Your task to perform on an android device: Go to network settings Image 0: 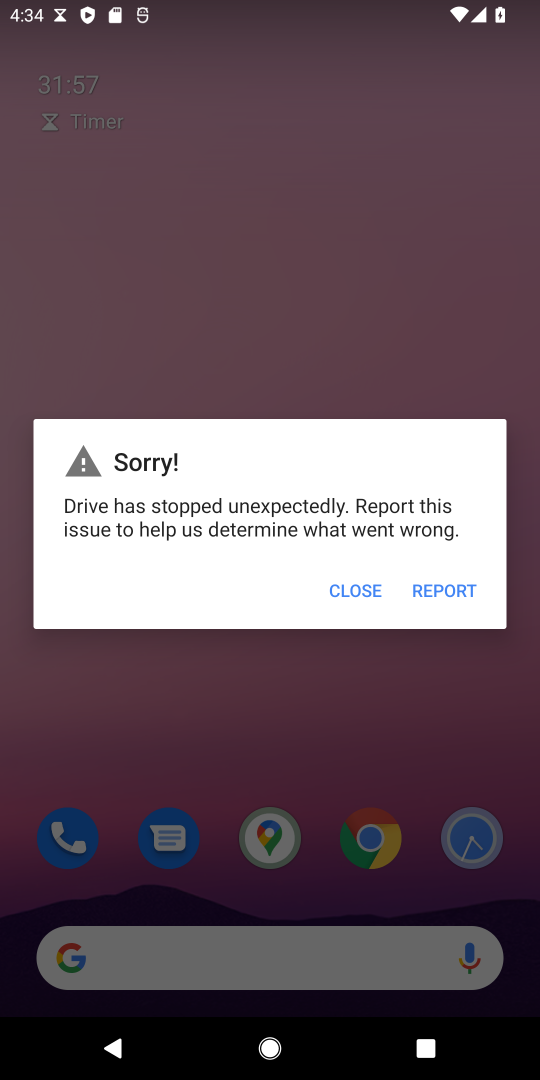
Step 0: press back button
Your task to perform on an android device: Go to network settings Image 1: 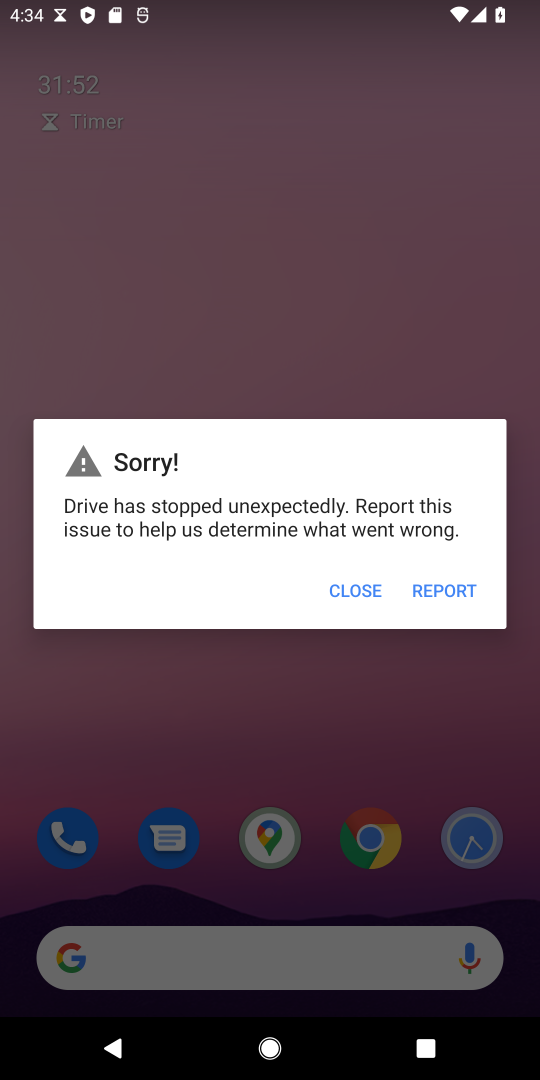
Step 1: press back button
Your task to perform on an android device: Go to network settings Image 2: 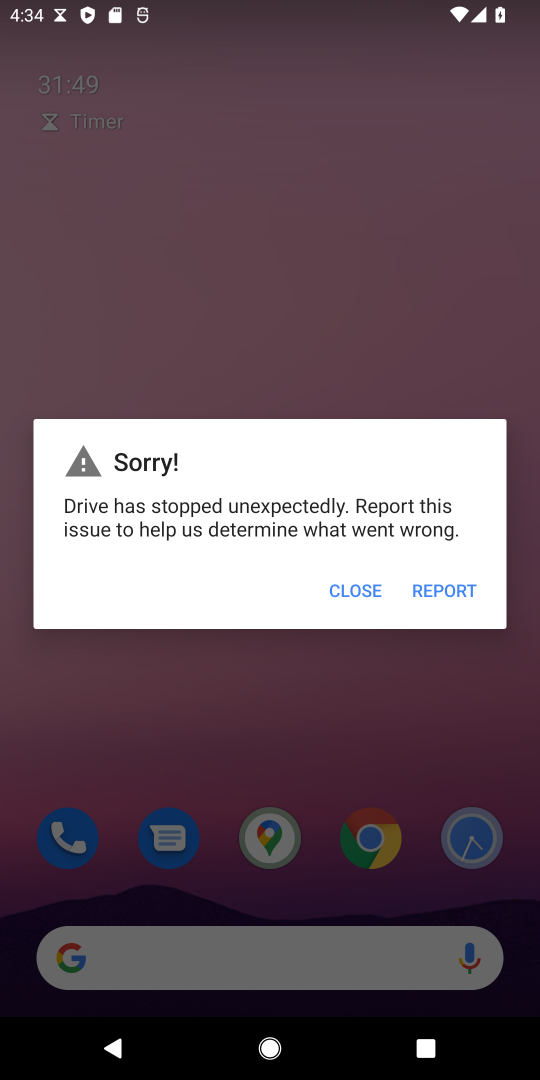
Step 2: press home button
Your task to perform on an android device: Go to network settings Image 3: 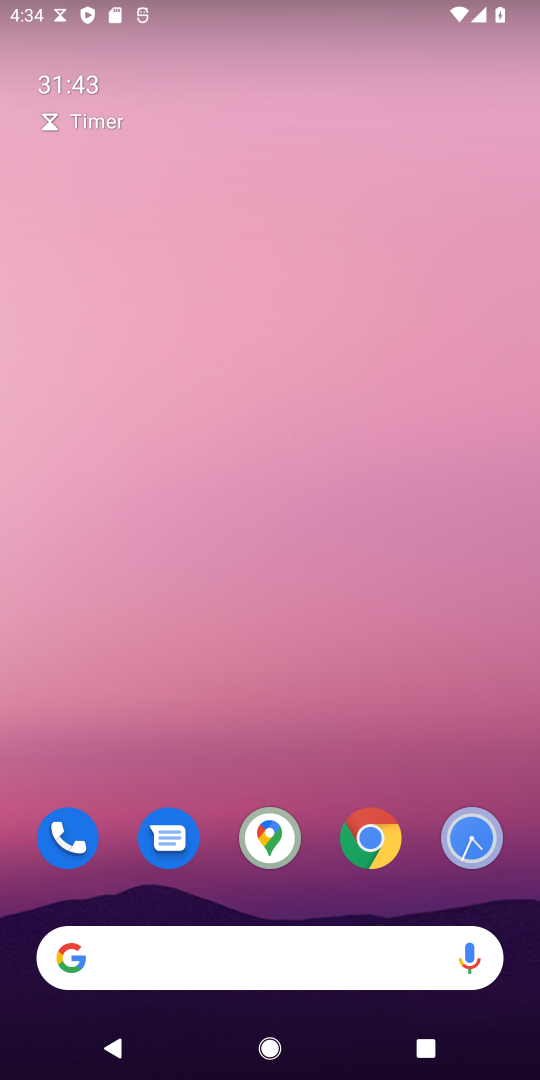
Step 3: drag from (323, 773) to (232, 253)
Your task to perform on an android device: Go to network settings Image 4: 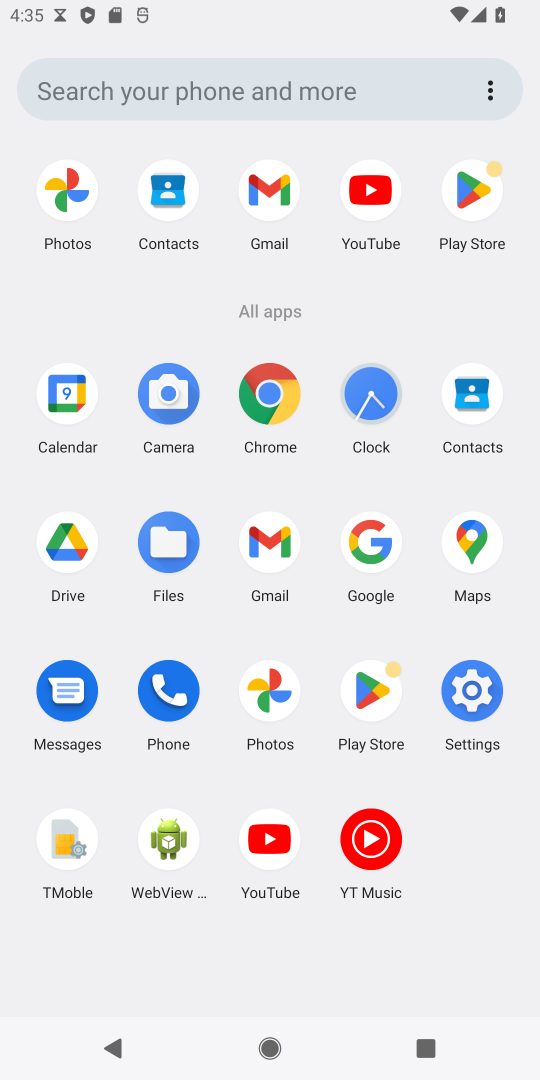
Step 4: click (463, 708)
Your task to perform on an android device: Go to network settings Image 5: 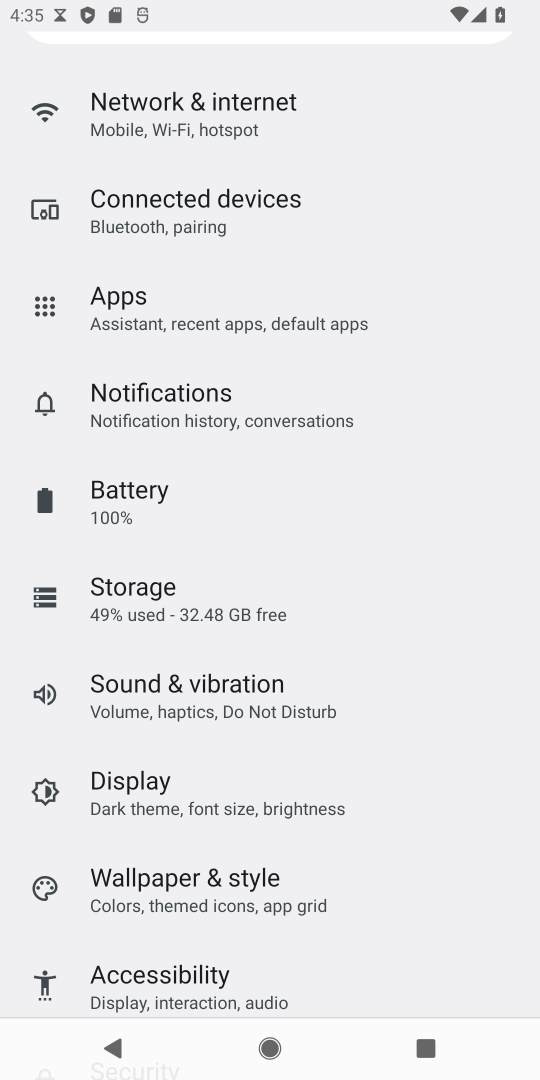
Step 5: click (278, 126)
Your task to perform on an android device: Go to network settings Image 6: 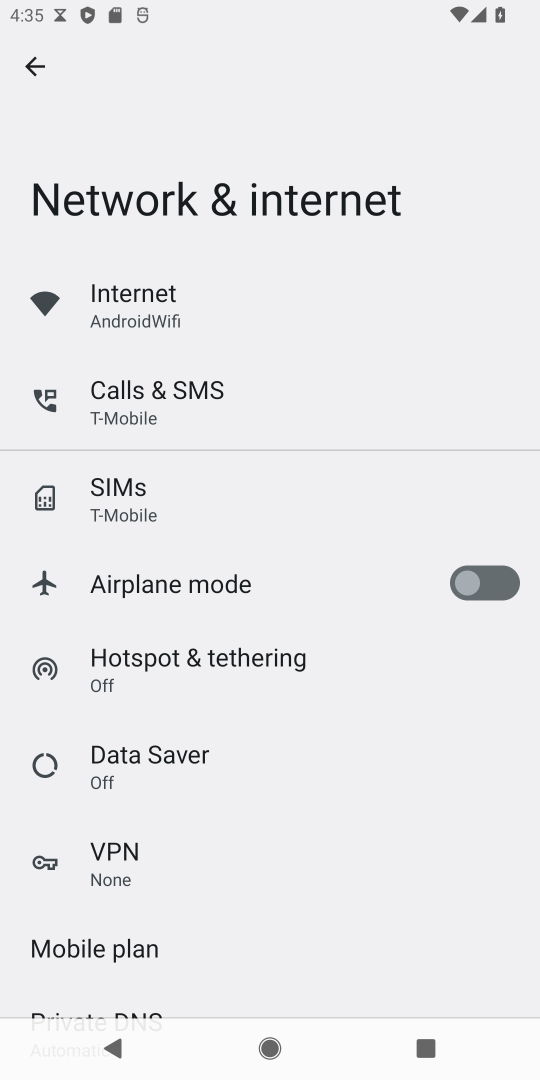
Step 6: task complete